Your task to perform on an android device: install app "Google Home" Image 0: 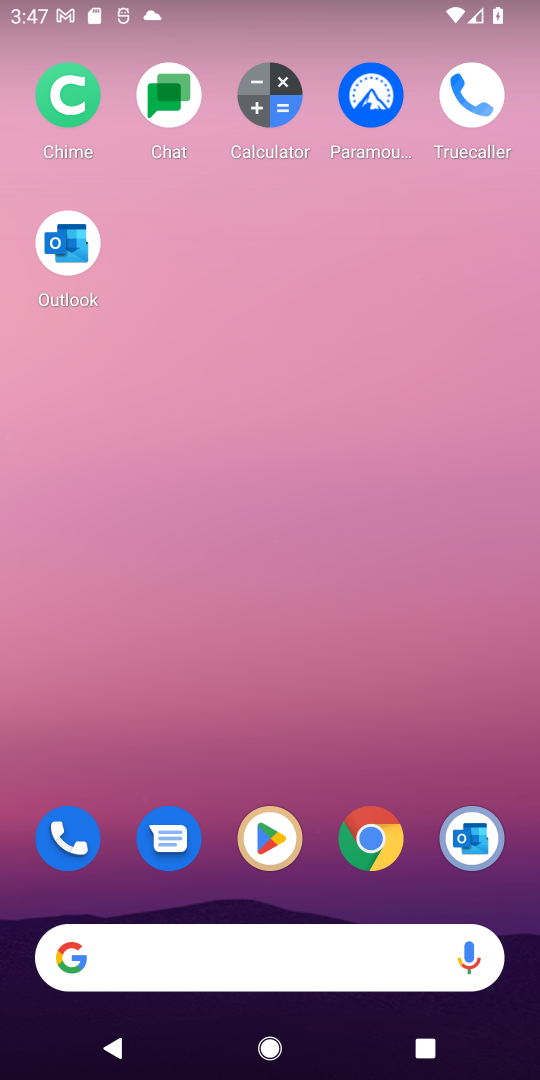
Step 0: click (269, 839)
Your task to perform on an android device: install app "Google Home" Image 1: 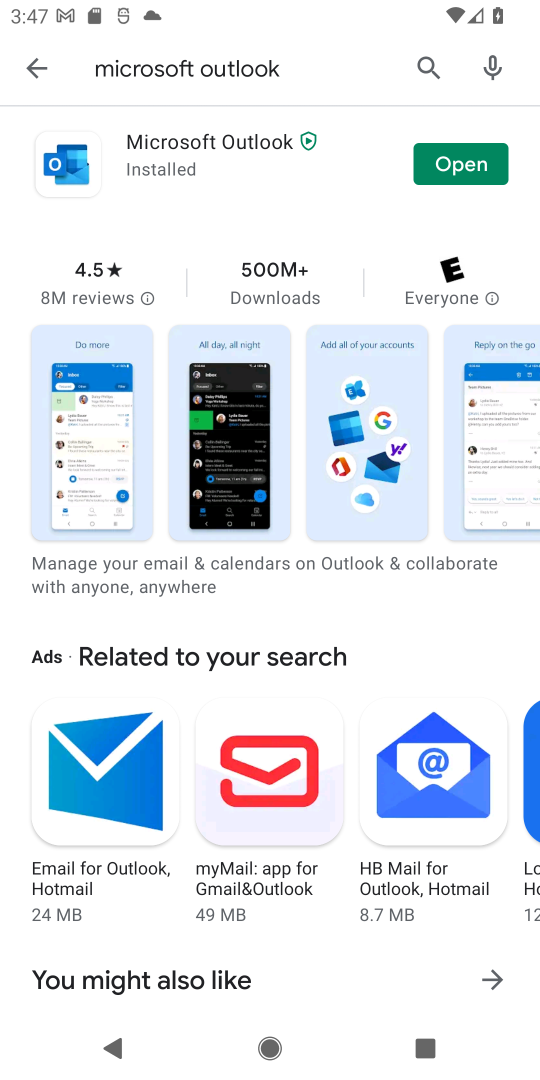
Step 1: click (440, 63)
Your task to perform on an android device: install app "Google Home" Image 2: 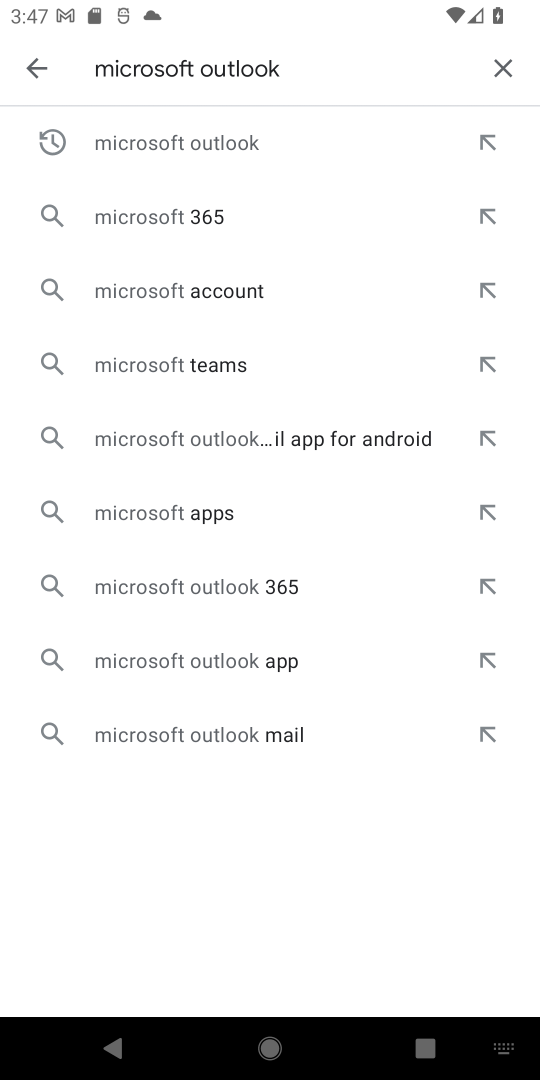
Step 2: click (511, 69)
Your task to perform on an android device: install app "Google Home" Image 3: 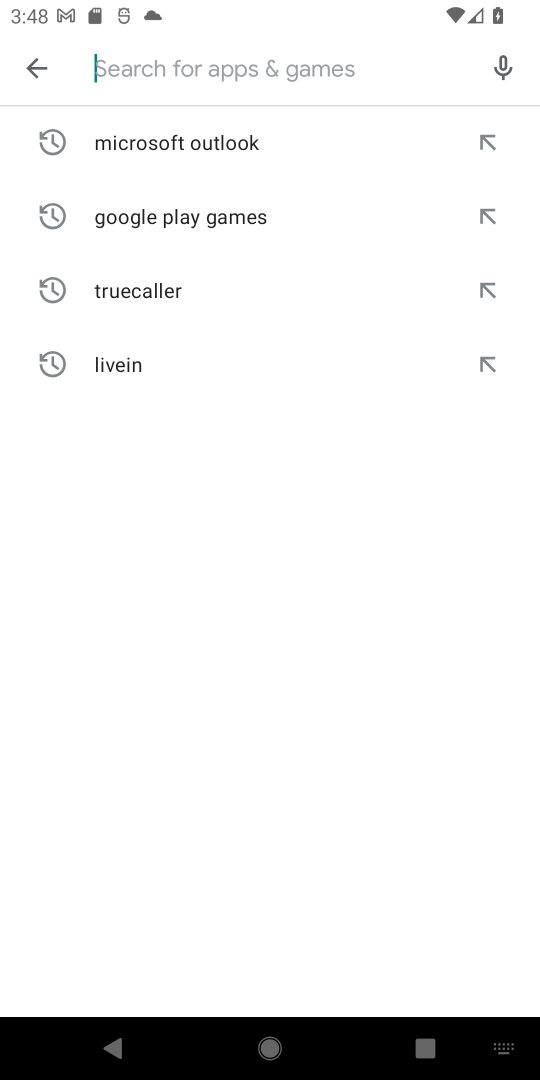
Step 3: click (190, 82)
Your task to perform on an android device: install app "Google Home" Image 4: 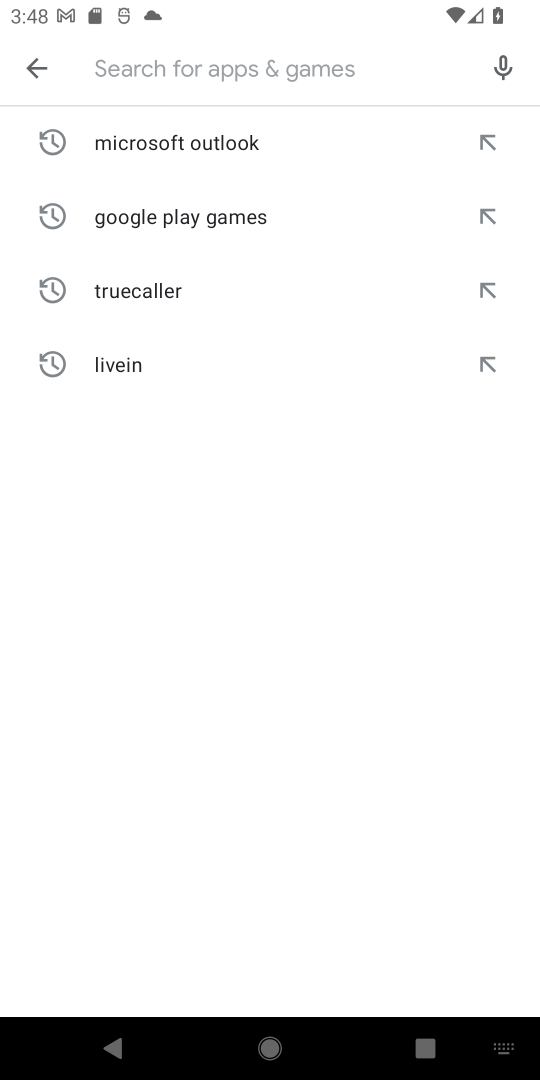
Step 4: type "Google Home"
Your task to perform on an android device: install app "Google Home" Image 5: 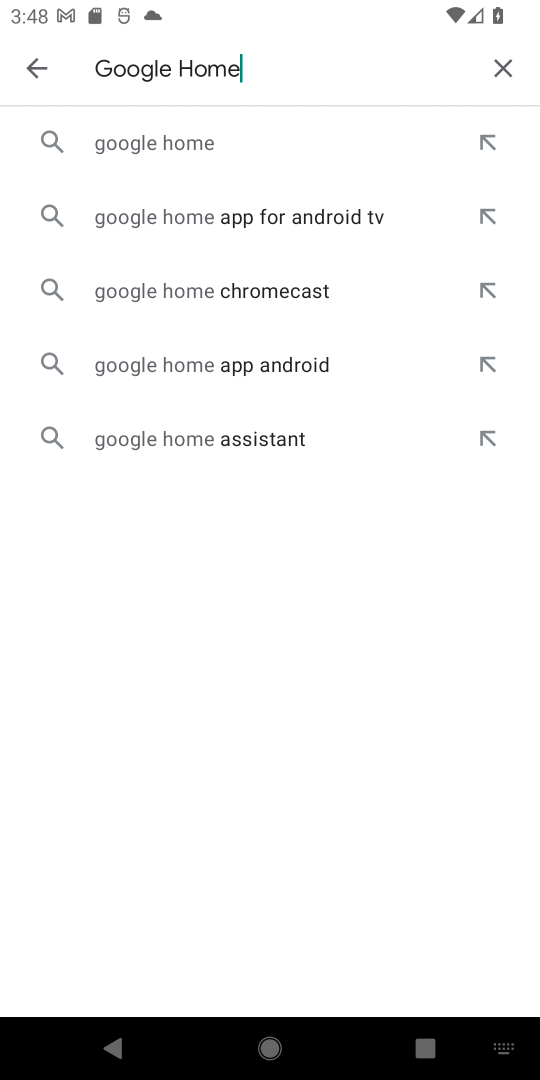
Step 5: click (128, 157)
Your task to perform on an android device: install app "Google Home" Image 6: 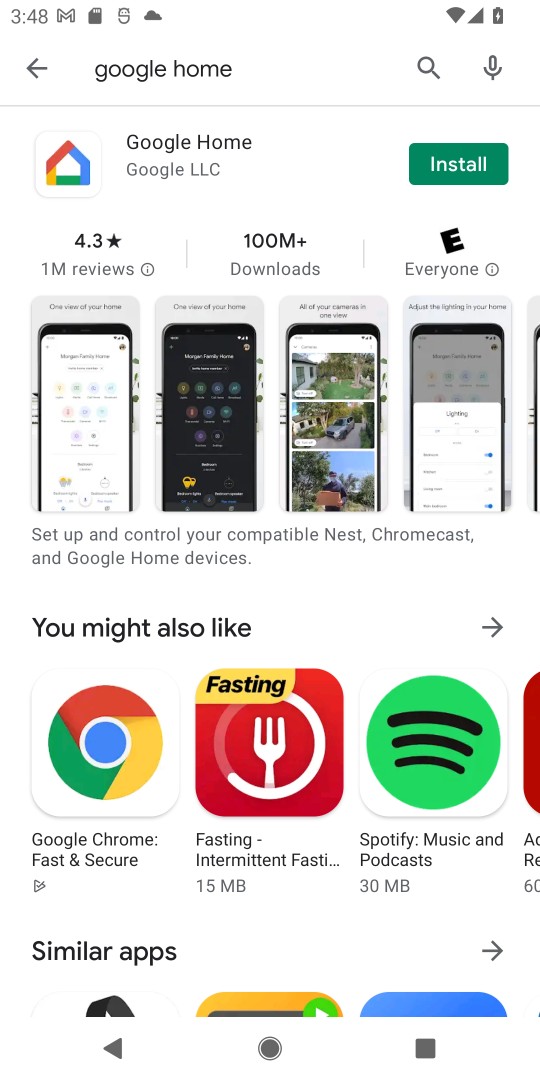
Step 6: click (450, 168)
Your task to perform on an android device: install app "Google Home" Image 7: 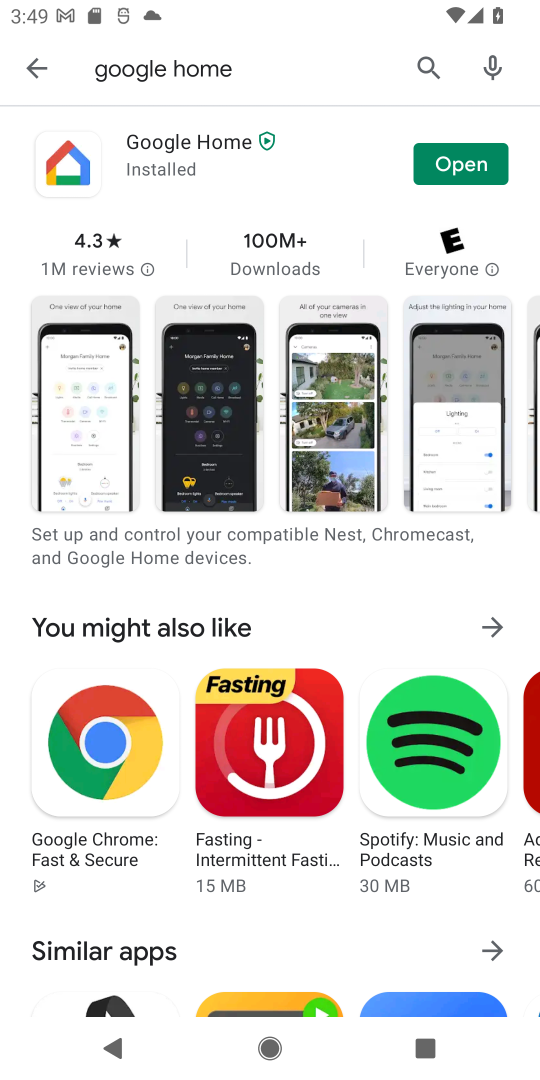
Step 7: task complete